Your task to perform on an android device: Find coffee shops on Maps Image 0: 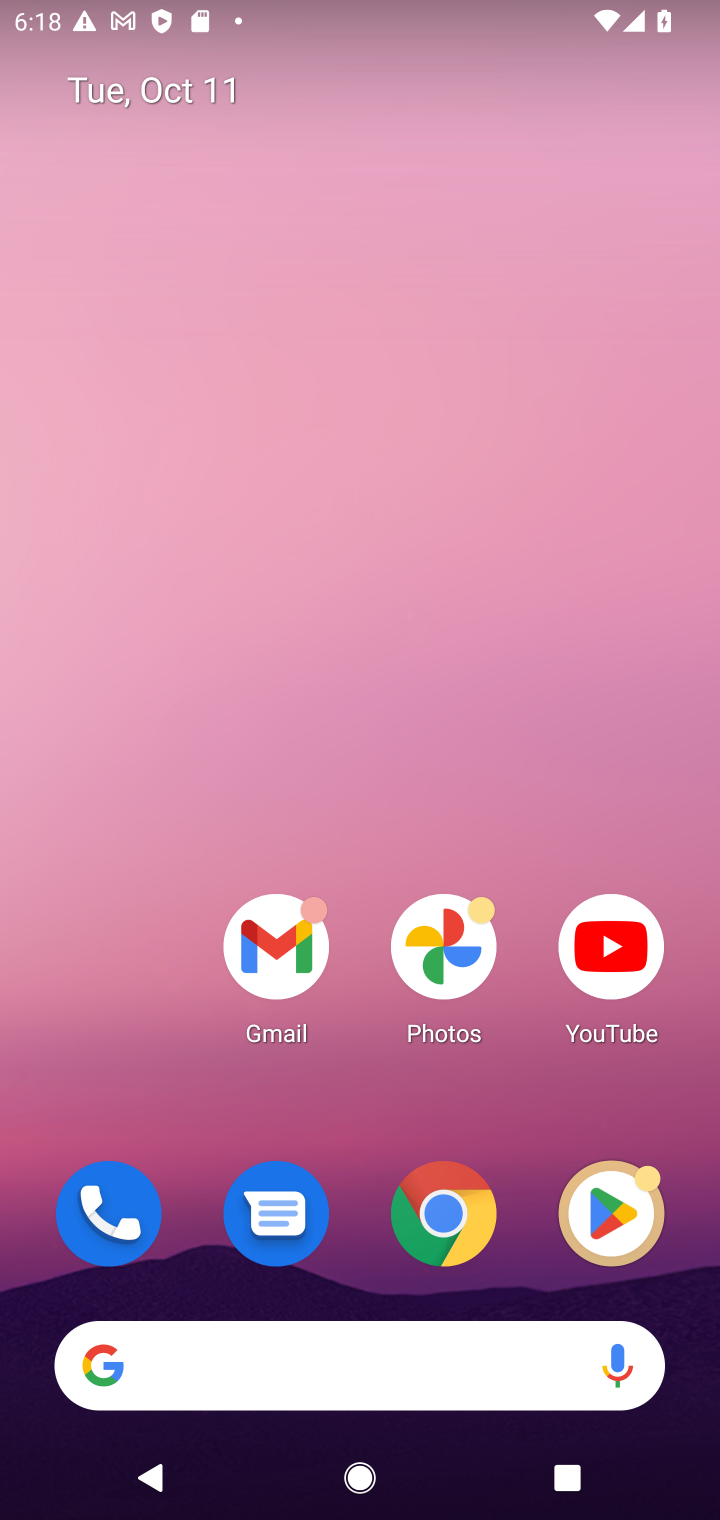
Step 0: drag from (405, 717) to (440, 521)
Your task to perform on an android device: Find coffee shops on Maps Image 1: 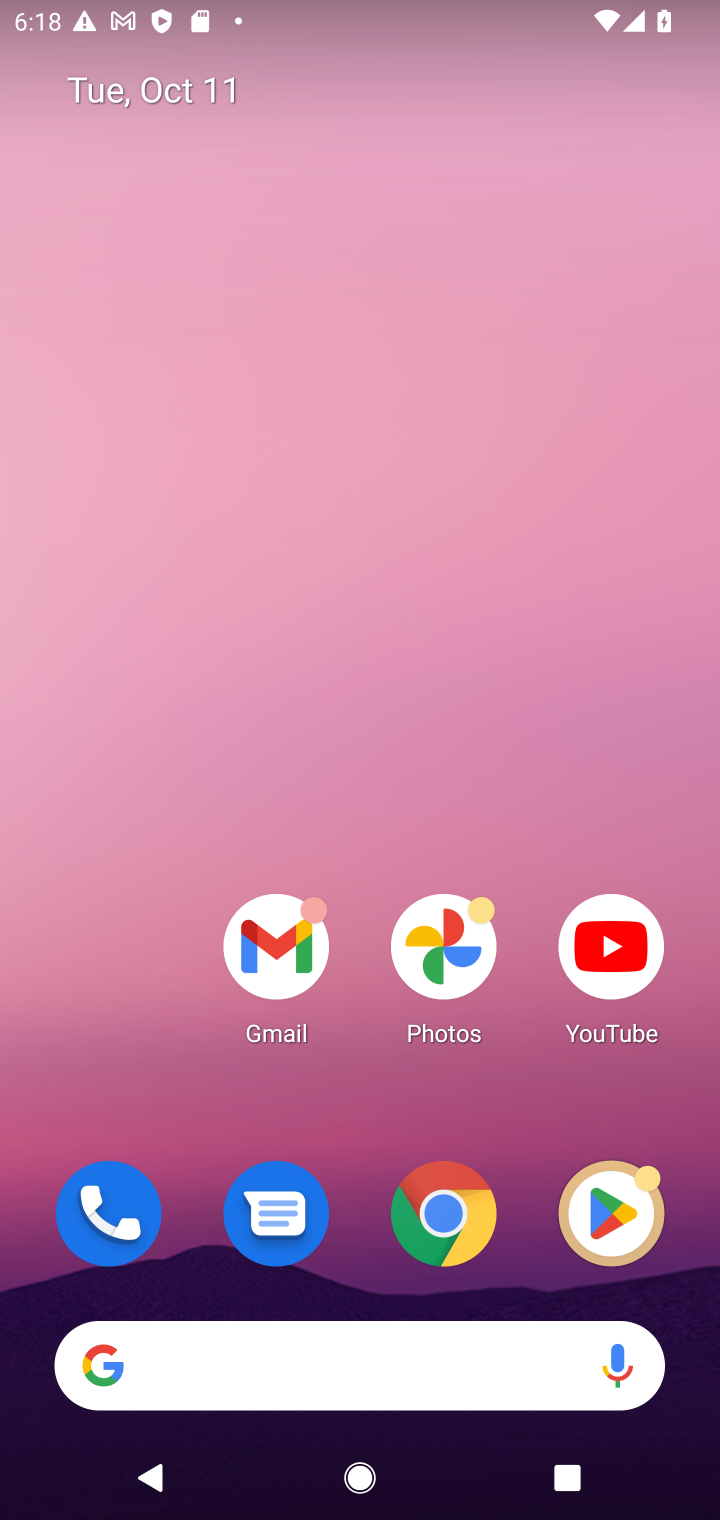
Step 1: drag from (502, 365) to (635, 74)
Your task to perform on an android device: Find coffee shops on Maps Image 2: 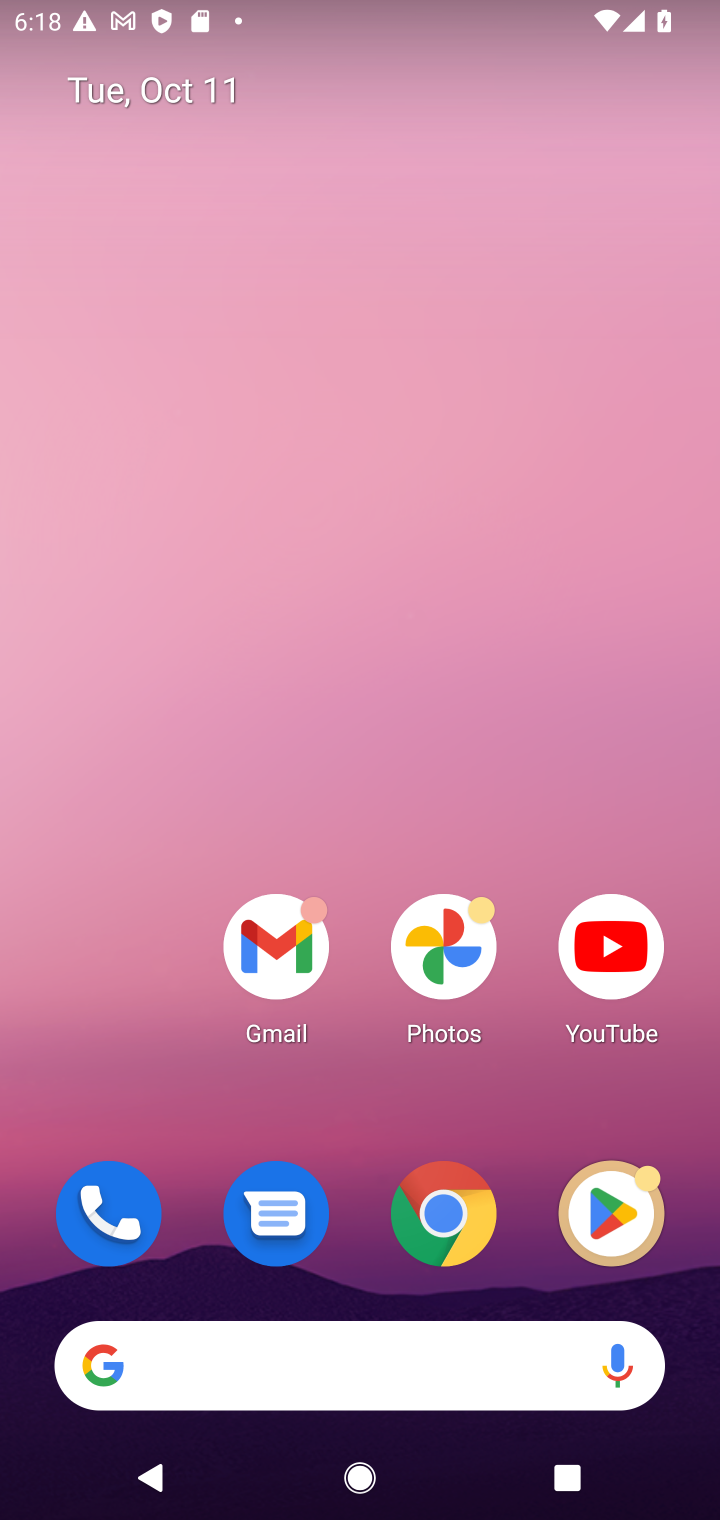
Step 2: drag from (342, 1390) to (448, 7)
Your task to perform on an android device: Find coffee shops on Maps Image 3: 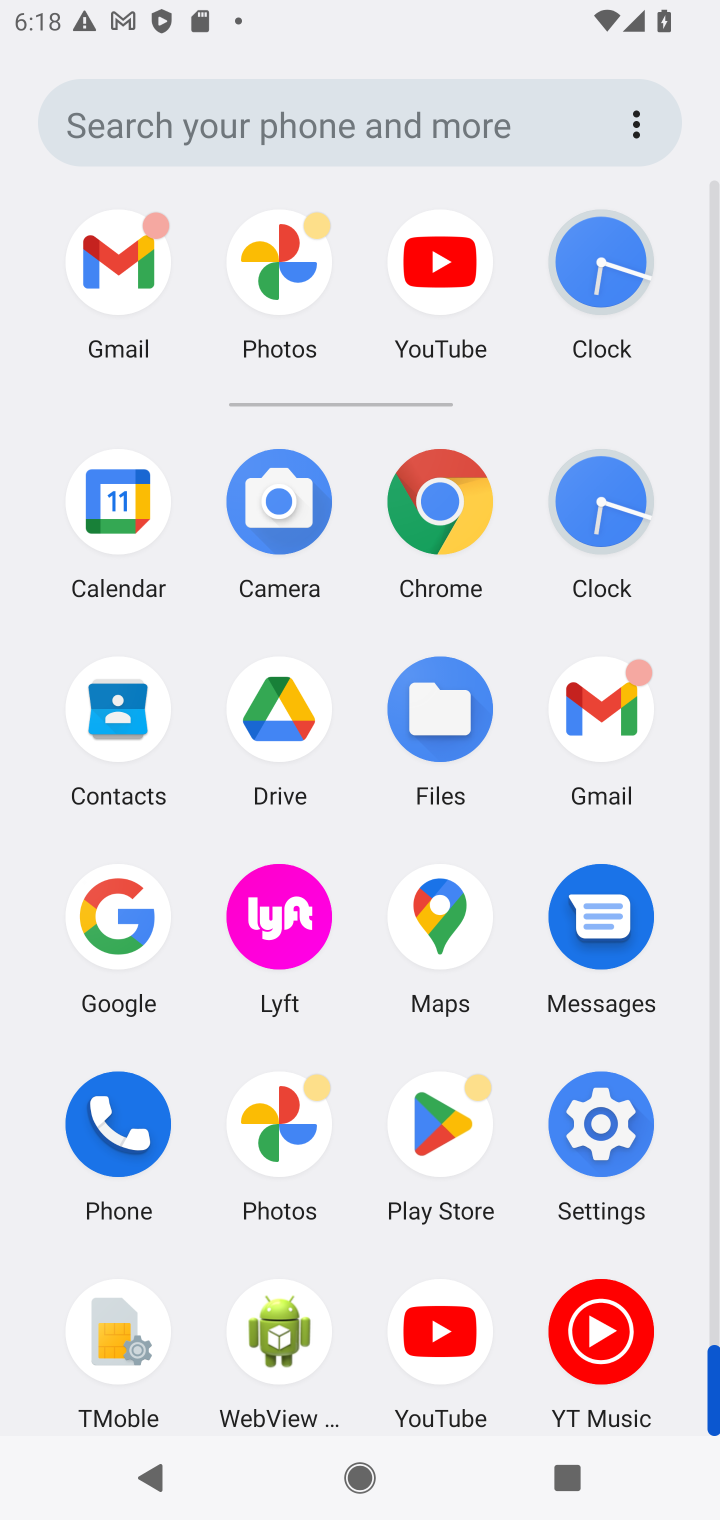
Step 3: click (423, 917)
Your task to perform on an android device: Find coffee shops on Maps Image 4: 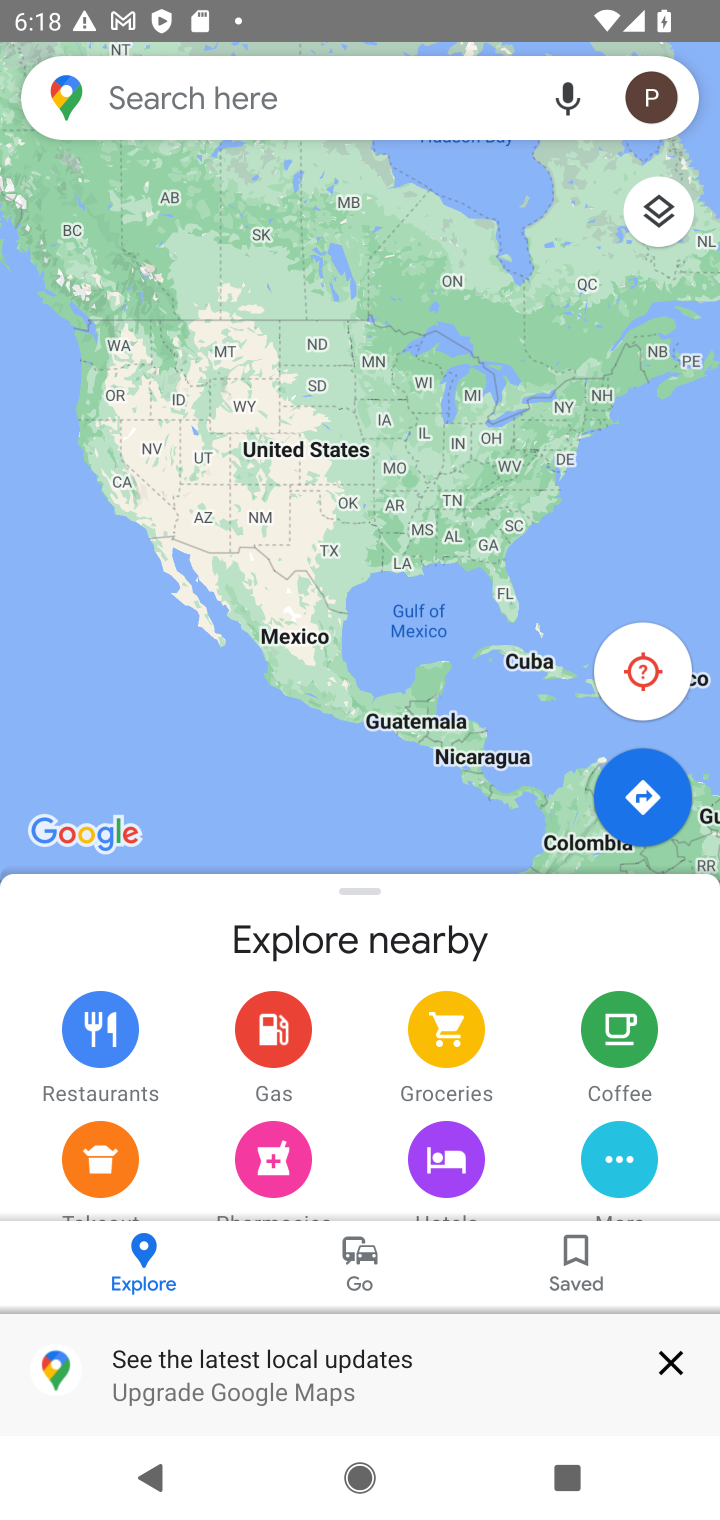
Step 4: click (136, 114)
Your task to perform on an android device: Find coffee shops on Maps Image 5: 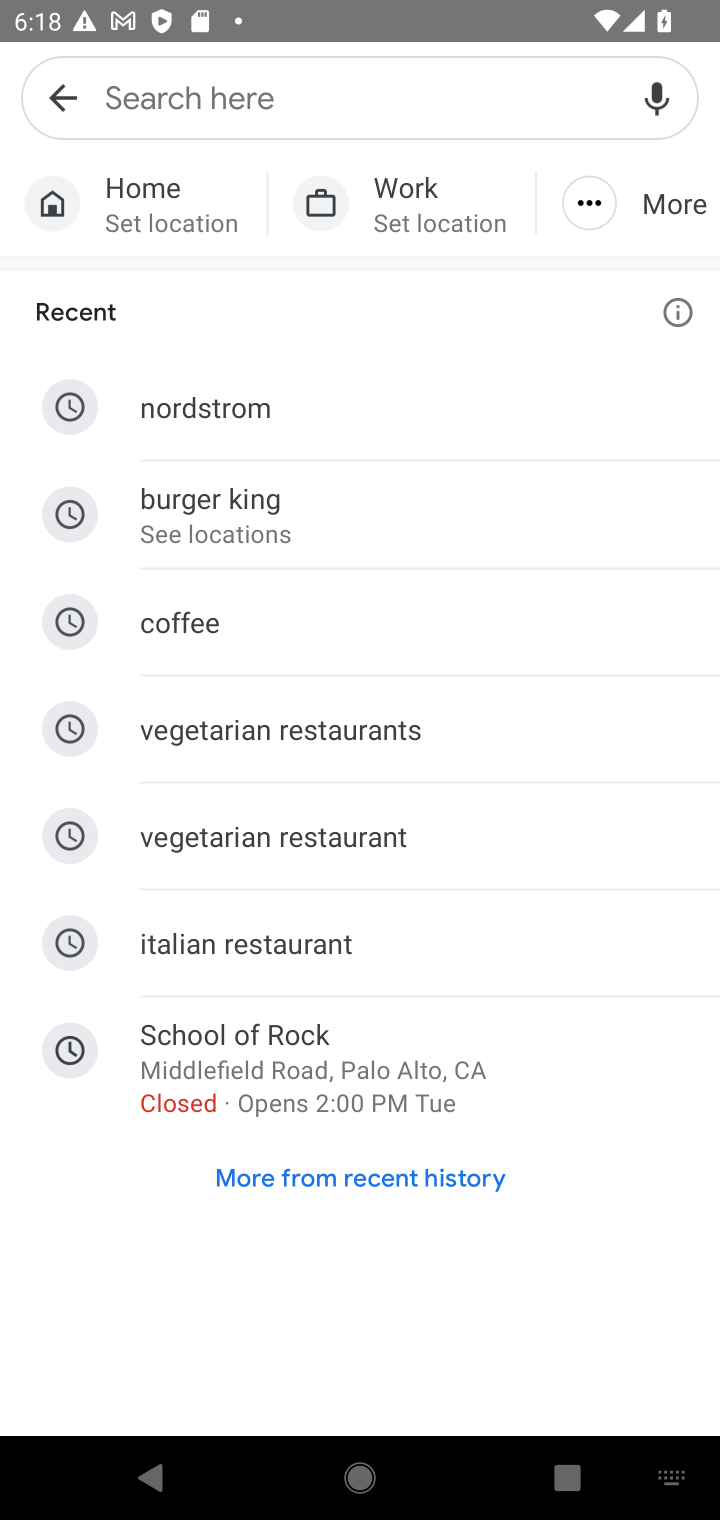
Step 5: type "coffee shops "
Your task to perform on an android device: Find coffee shops on Maps Image 6: 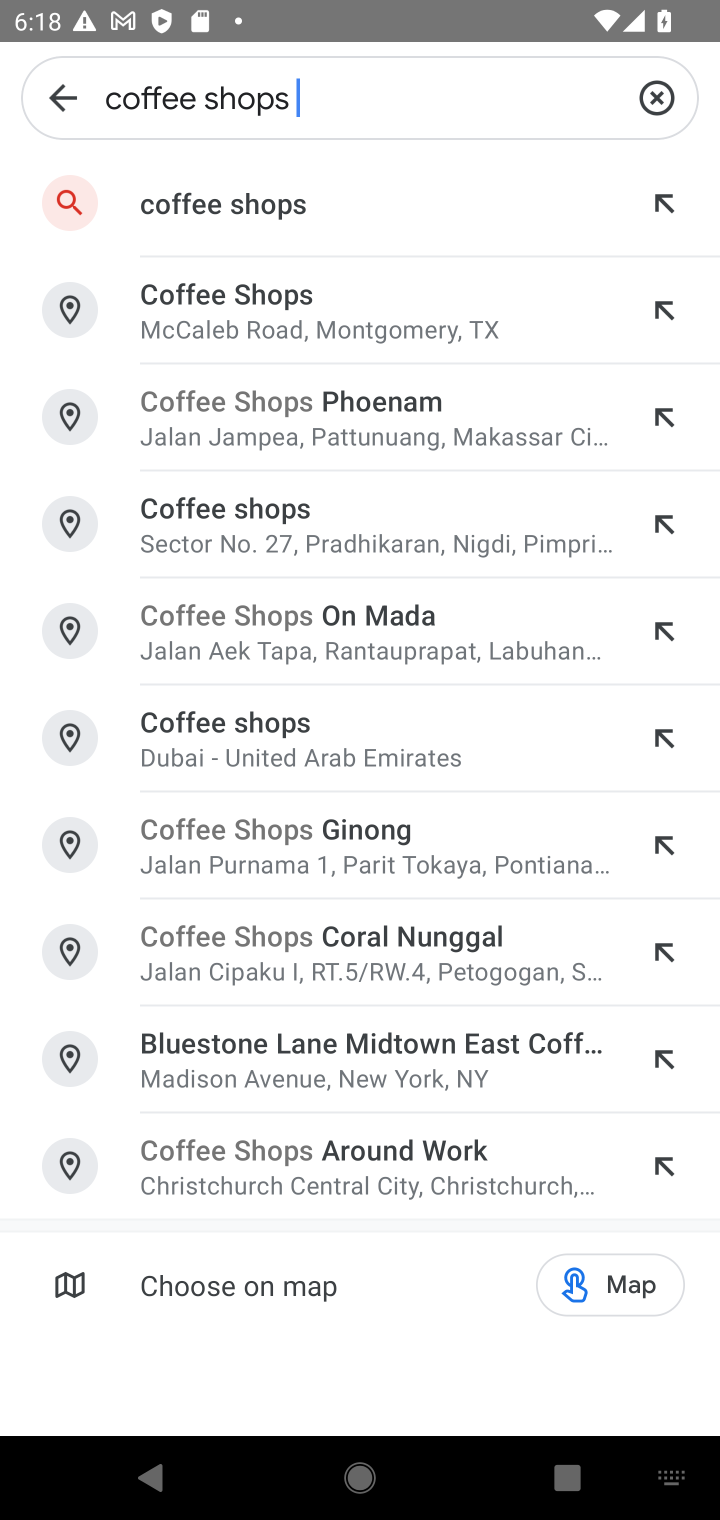
Step 6: click (232, 219)
Your task to perform on an android device: Find coffee shops on Maps Image 7: 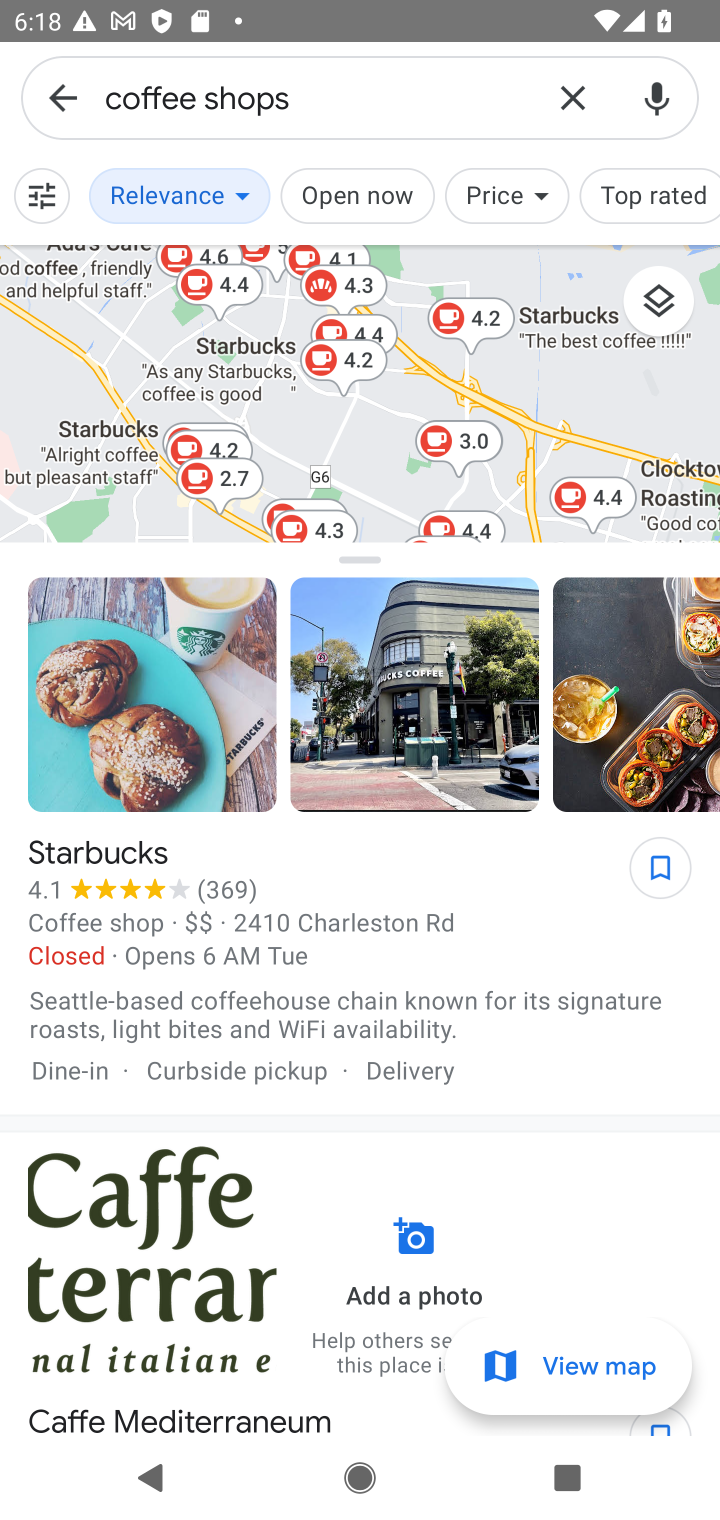
Step 7: task complete